Your task to perform on an android device: set the timer Image 0: 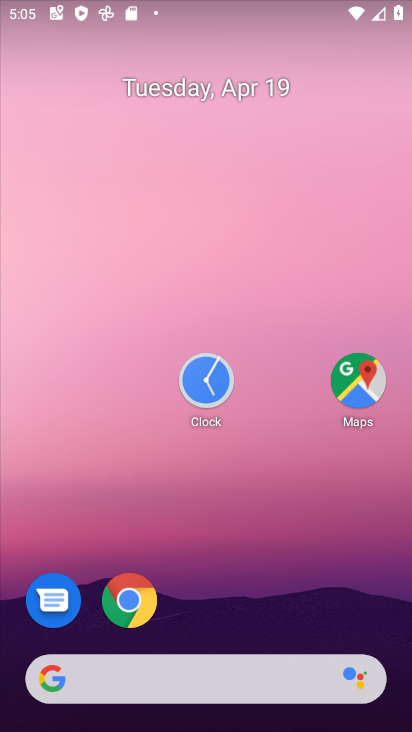
Step 0: drag from (244, 383) to (225, 283)
Your task to perform on an android device: set the timer Image 1: 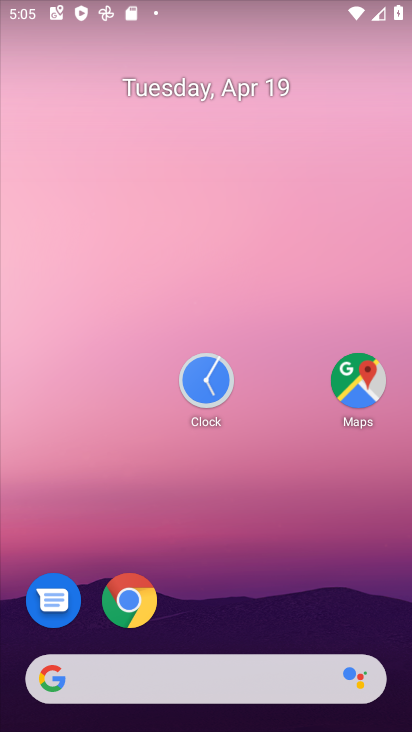
Step 1: drag from (225, 432) to (143, 145)
Your task to perform on an android device: set the timer Image 2: 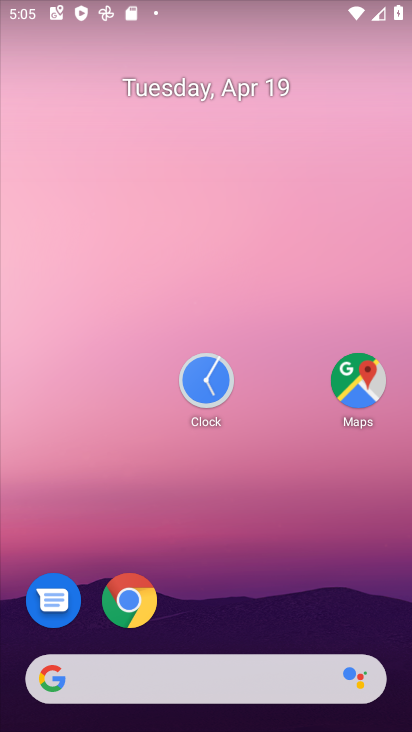
Step 2: drag from (363, 631) to (167, 122)
Your task to perform on an android device: set the timer Image 3: 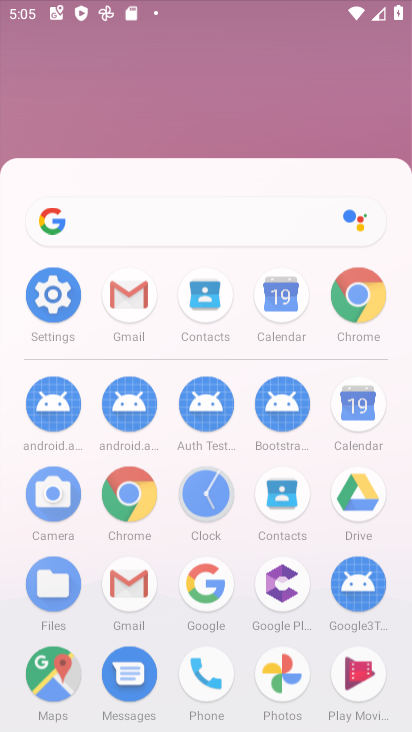
Step 3: drag from (277, 540) to (198, 182)
Your task to perform on an android device: set the timer Image 4: 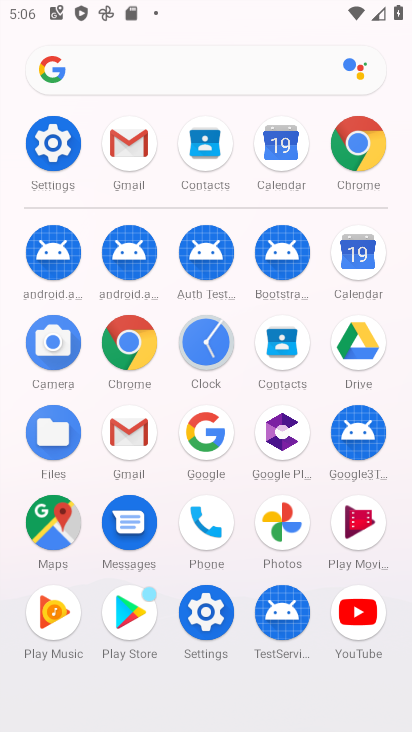
Step 4: click (201, 350)
Your task to perform on an android device: set the timer Image 5: 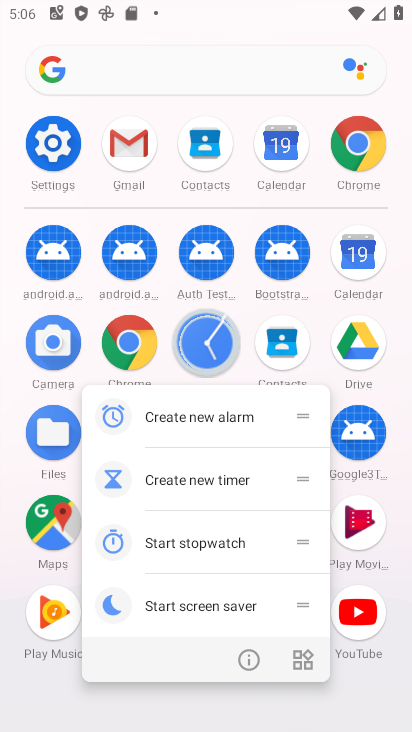
Step 5: click (201, 350)
Your task to perform on an android device: set the timer Image 6: 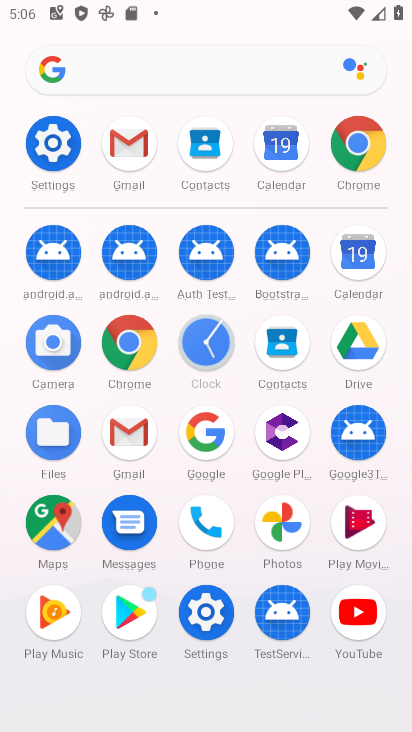
Step 6: click (201, 350)
Your task to perform on an android device: set the timer Image 7: 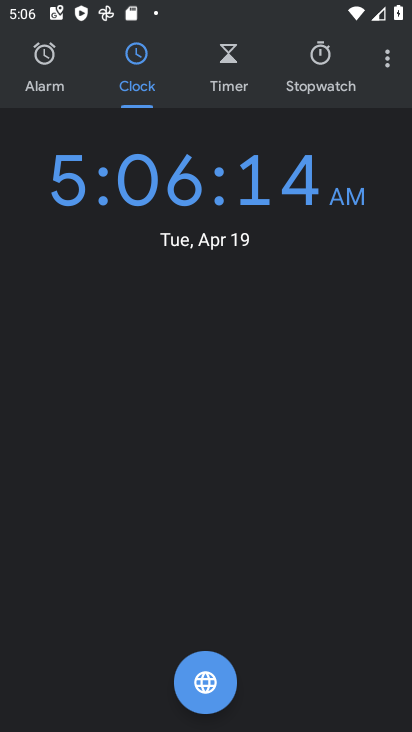
Step 7: click (225, 81)
Your task to perform on an android device: set the timer Image 8: 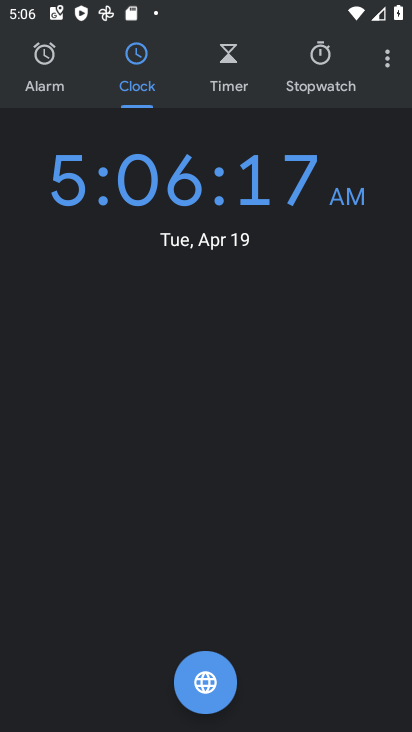
Step 8: click (225, 80)
Your task to perform on an android device: set the timer Image 9: 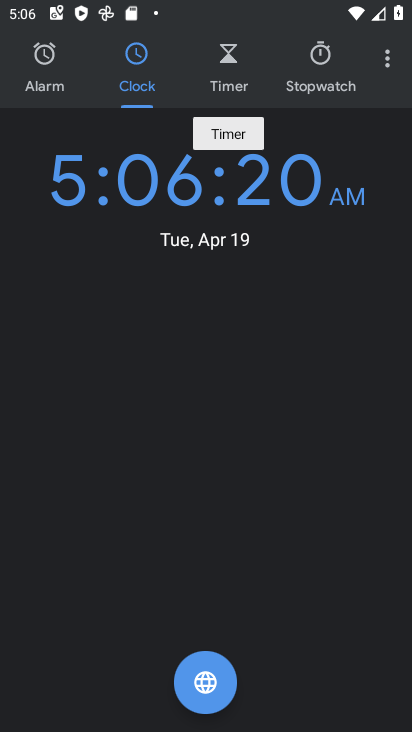
Step 9: click (225, 80)
Your task to perform on an android device: set the timer Image 10: 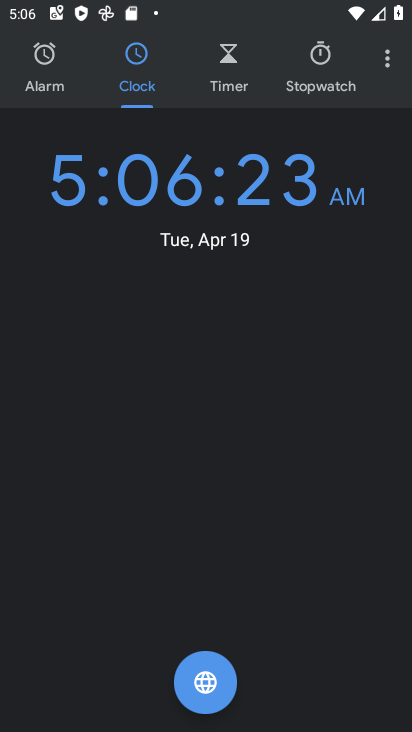
Step 10: click (226, 79)
Your task to perform on an android device: set the timer Image 11: 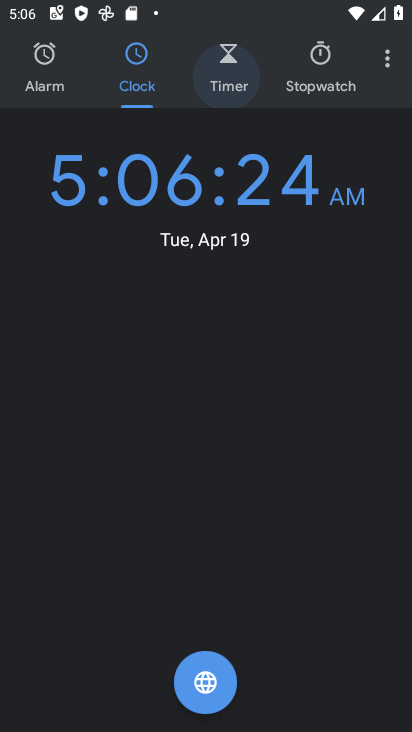
Step 11: click (226, 79)
Your task to perform on an android device: set the timer Image 12: 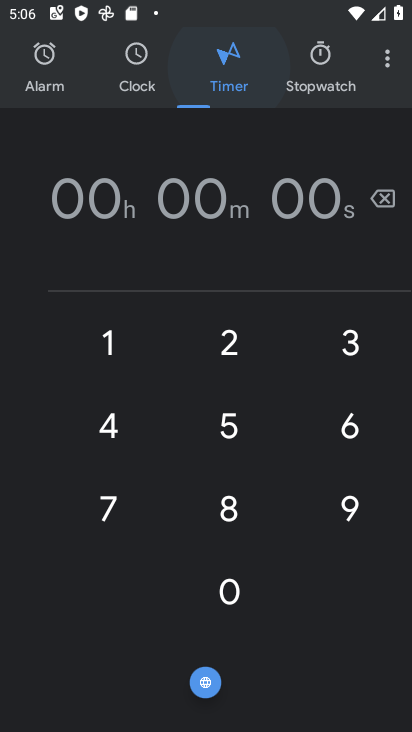
Step 12: click (226, 79)
Your task to perform on an android device: set the timer Image 13: 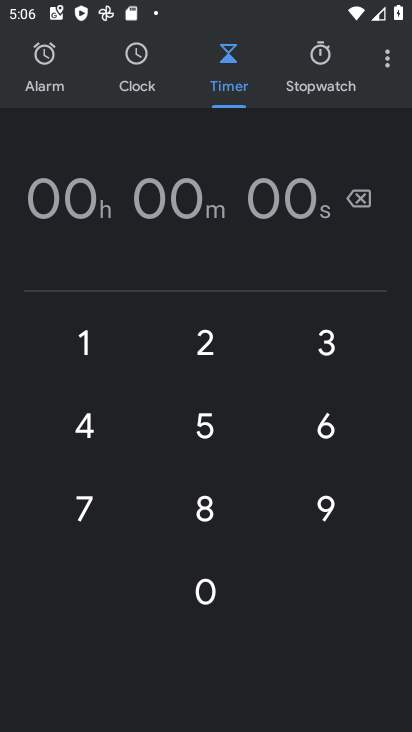
Step 13: click (207, 584)
Your task to perform on an android device: set the timer Image 14: 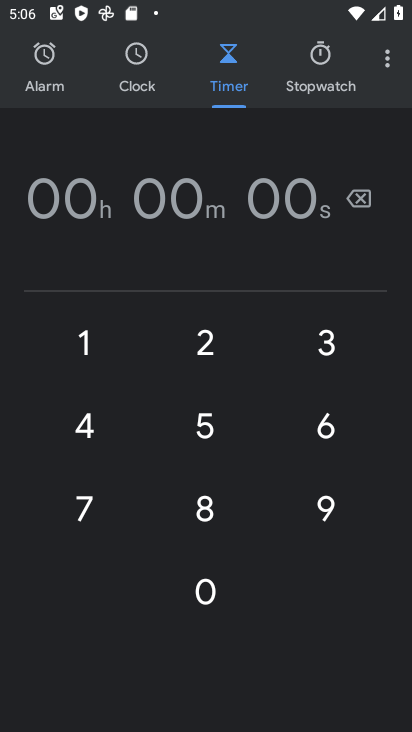
Step 14: click (207, 584)
Your task to perform on an android device: set the timer Image 15: 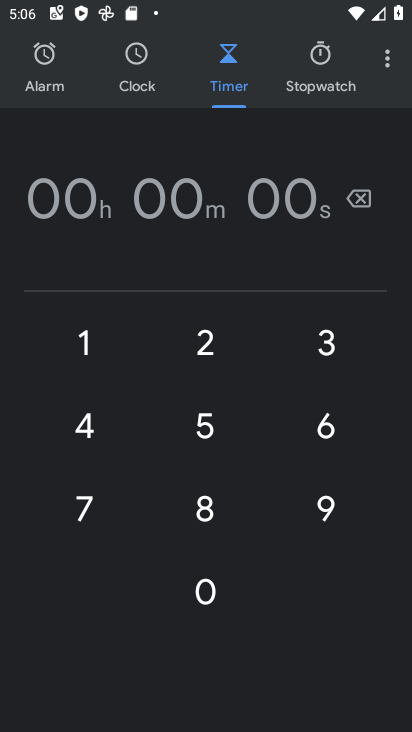
Step 15: click (203, 504)
Your task to perform on an android device: set the timer Image 16: 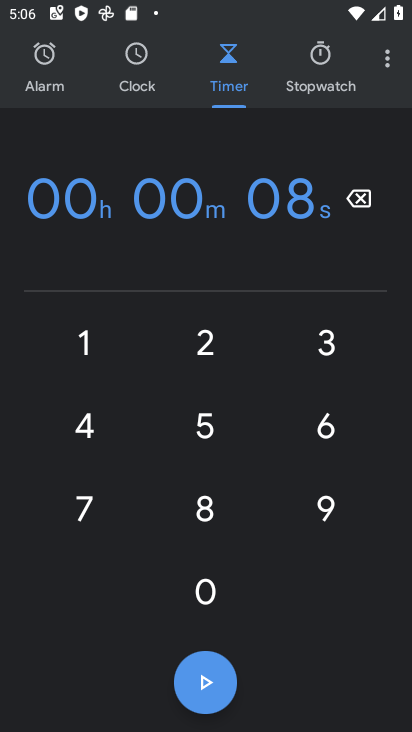
Step 16: click (205, 687)
Your task to perform on an android device: set the timer Image 17: 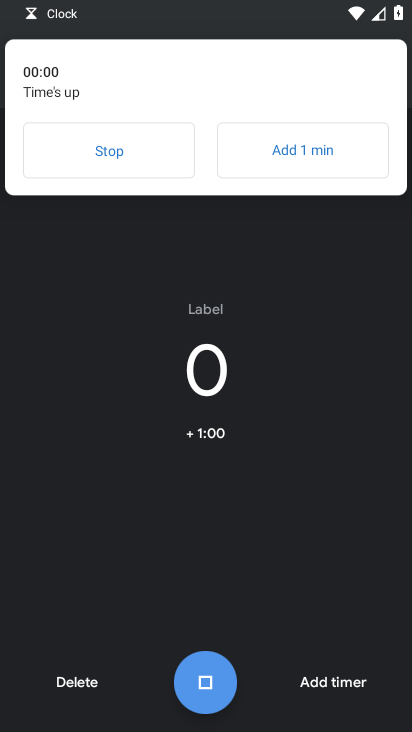
Step 17: click (210, 674)
Your task to perform on an android device: set the timer Image 18: 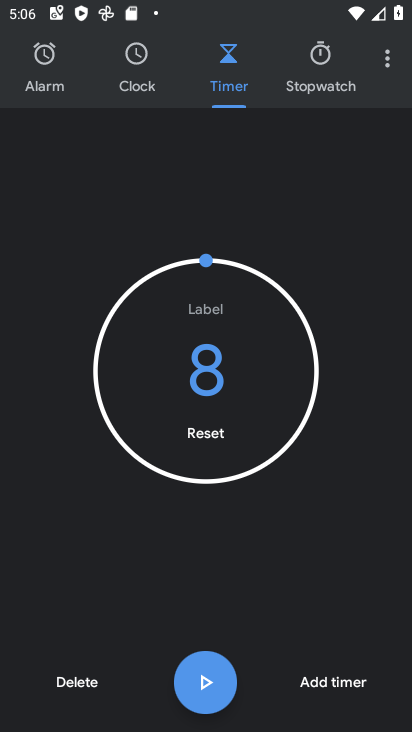
Step 18: task complete